Your task to perform on an android device: Is it going to rain tomorrow? Image 0: 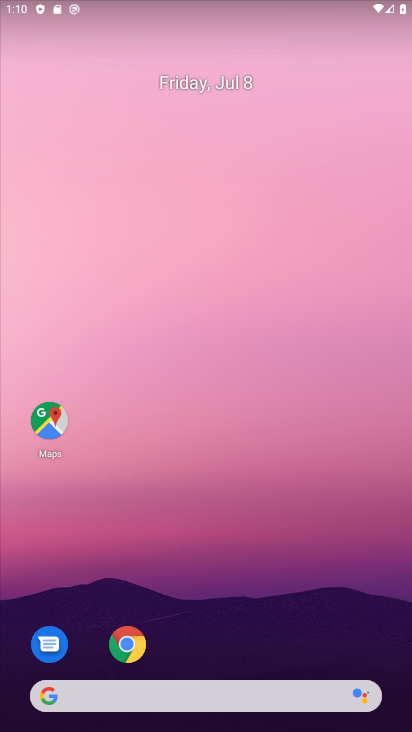
Step 0: press home button
Your task to perform on an android device: Is it going to rain tomorrow? Image 1: 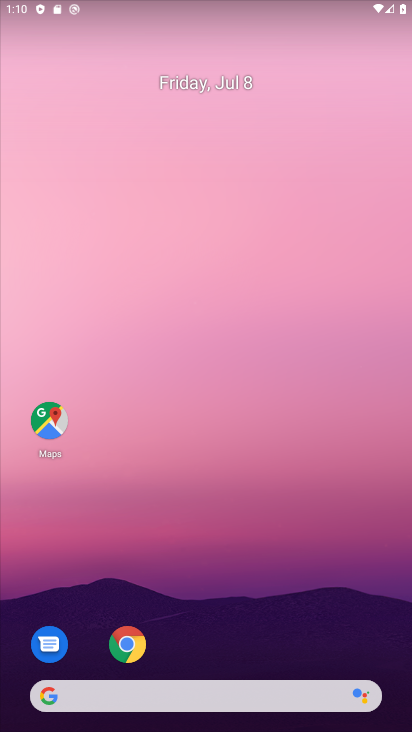
Step 1: click (209, 702)
Your task to perform on an android device: Is it going to rain tomorrow? Image 2: 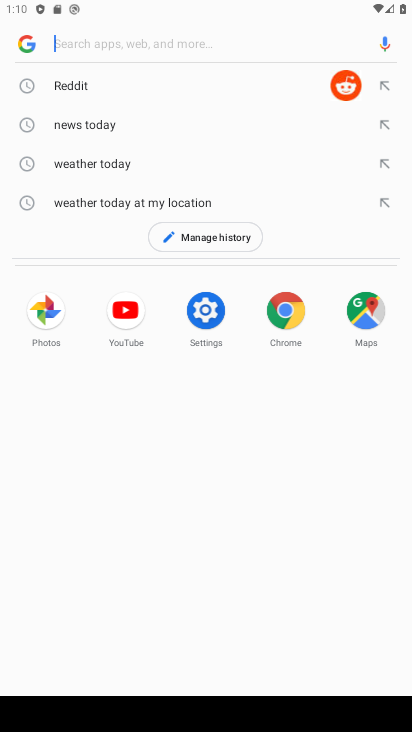
Step 2: type "Is it going to rain tomorrow"
Your task to perform on an android device: Is it going to rain tomorrow? Image 3: 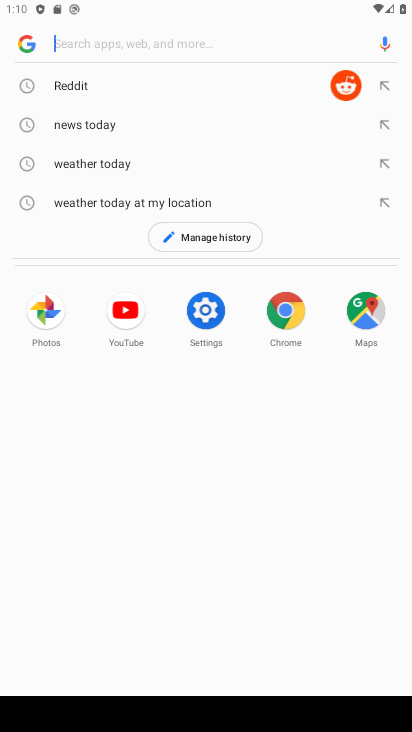
Step 3: click (132, 42)
Your task to perform on an android device: Is it going to rain tomorrow? Image 4: 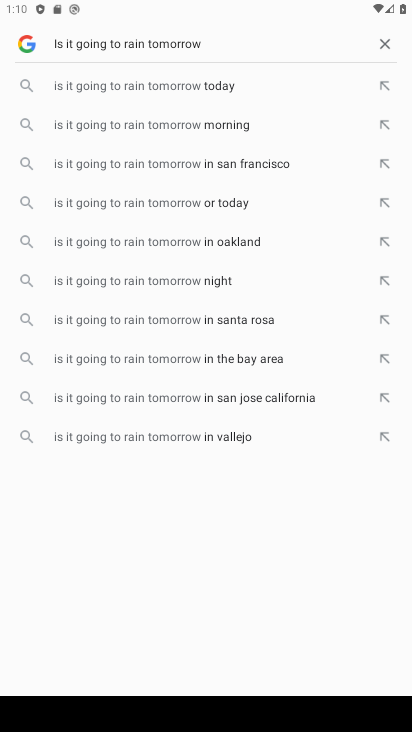
Step 4: press enter
Your task to perform on an android device: Is it going to rain tomorrow? Image 5: 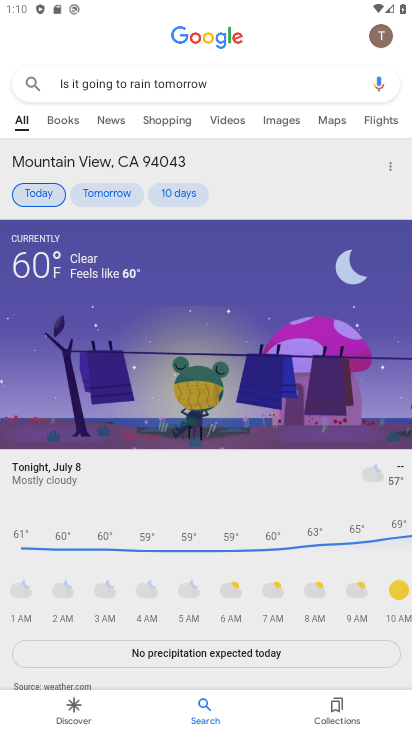
Step 5: task complete